Your task to perform on an android device: install app "eBay: The shopping marketplace" Image 0: 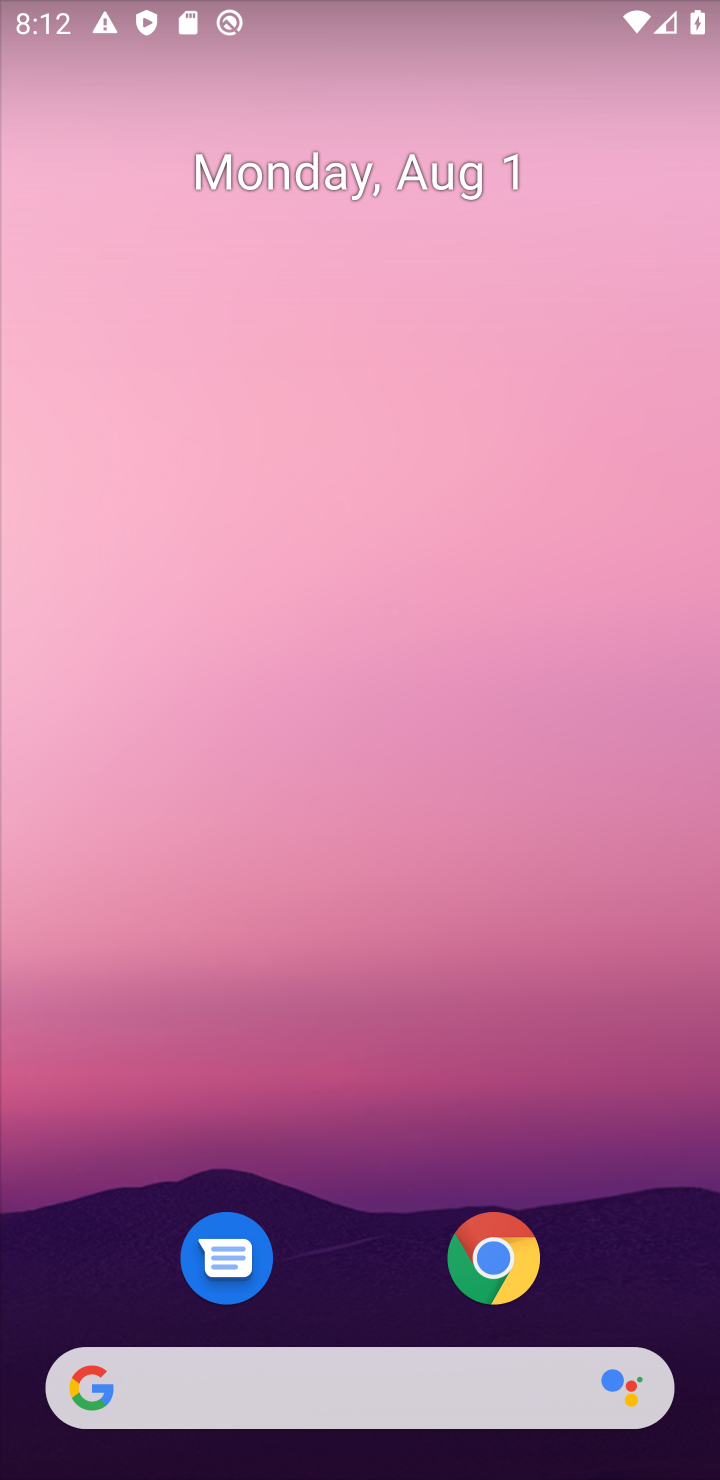
Step 0: drag from (305, 1274) to (425, 408)
Your task to perform on an android device: install app "eBay: The shopping marketplace" Image 1: 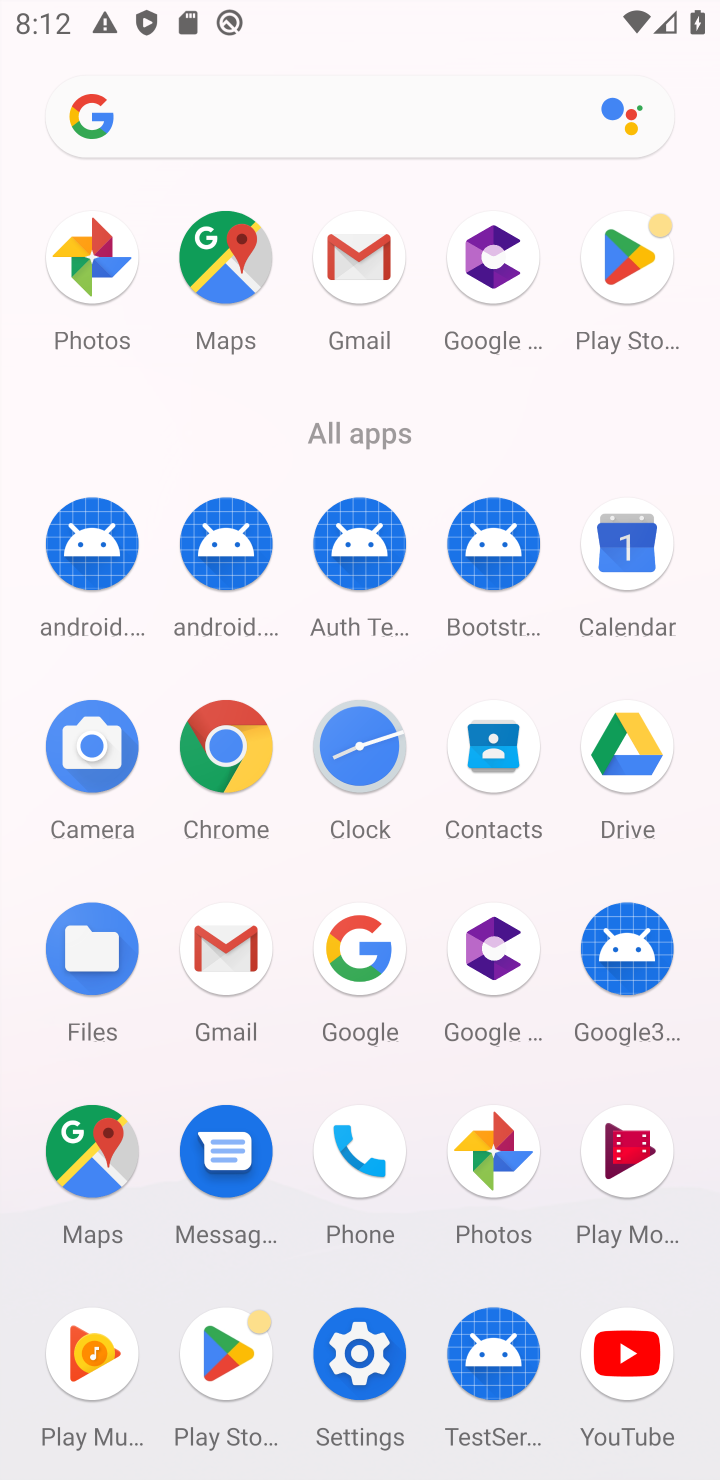
Step 1: click (222, 1349)
Your task to perform on an android device: install app "eBay: The shopping marketplace" Image 2: 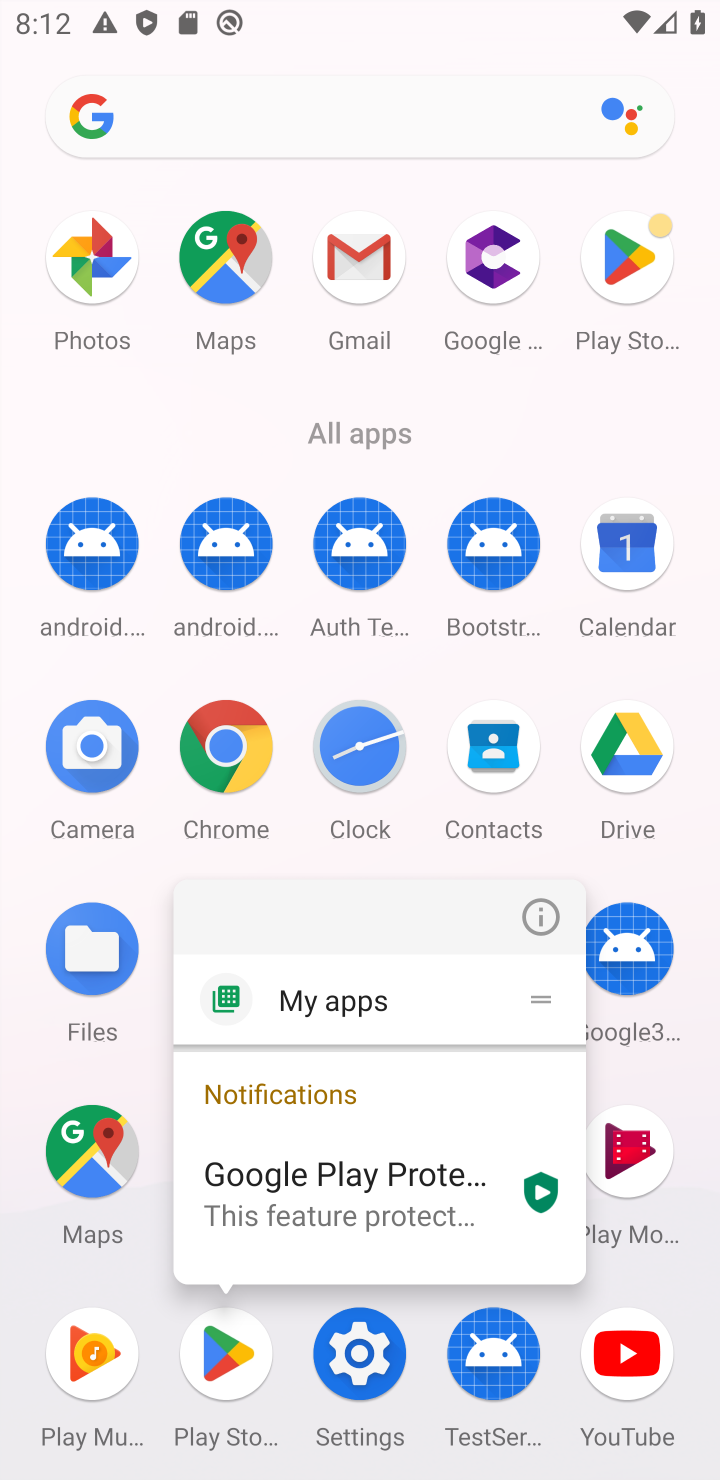
Step 2: click (235, 1344)
Your task to perform on an android device: install app "eBay: The shopping marketplace" Image 3: 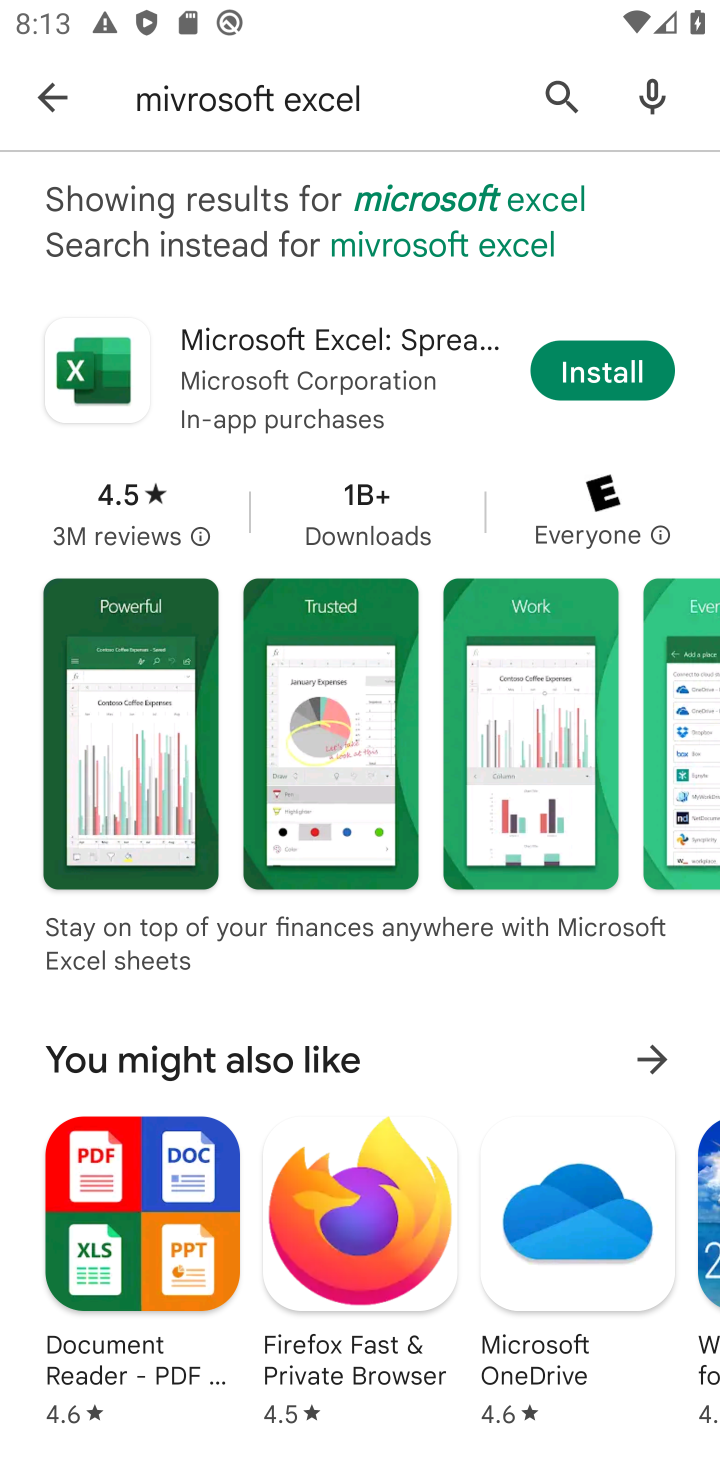
Step 3: click (48, 94)
Your task to perform on an android device: install app "eBay: The shopping marketplace" Image 4: 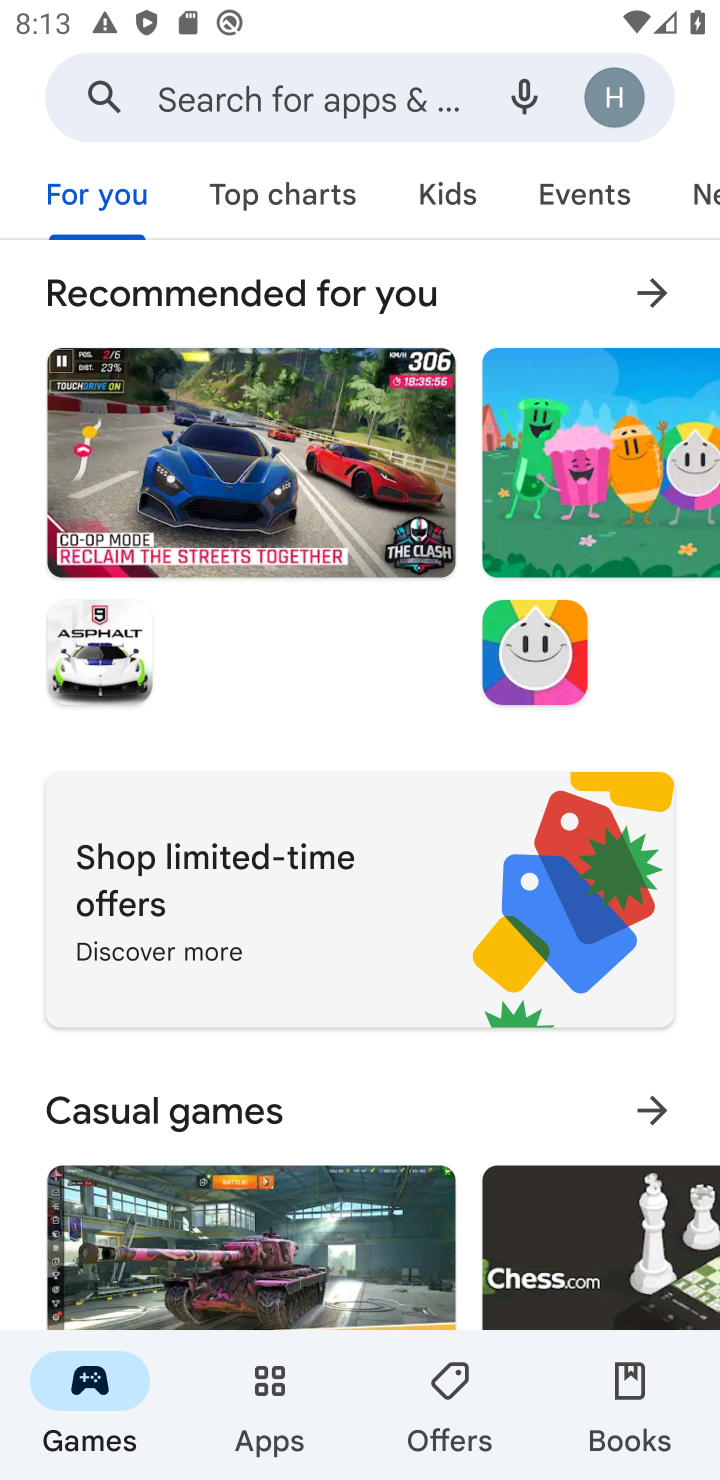
Step 4: type "eBay"
Your task to perform on an android device: install app "eBay: The shopping marketplace" Image 5: 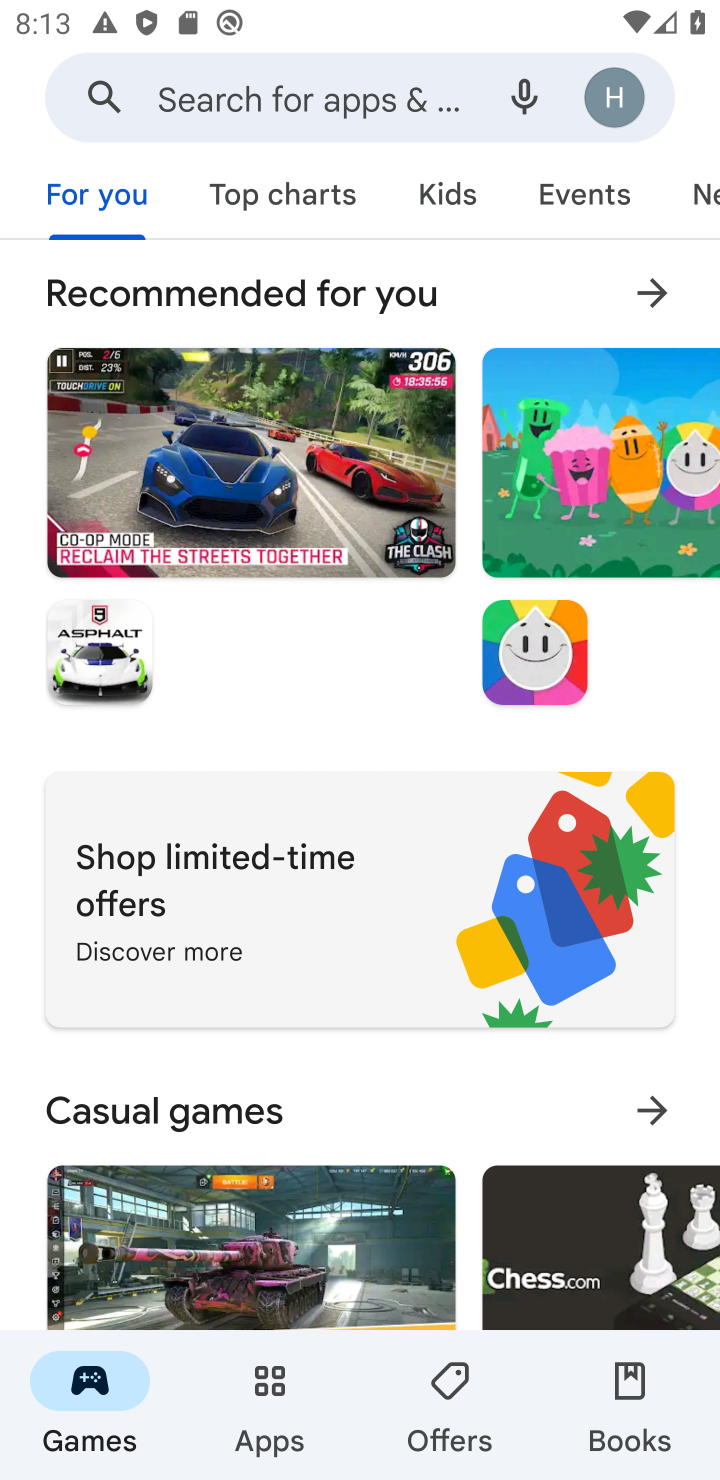
Step 5: click (171, 100)
Your task to perform on an android device: install app "eBay: The shopping marketplace" Image 6: 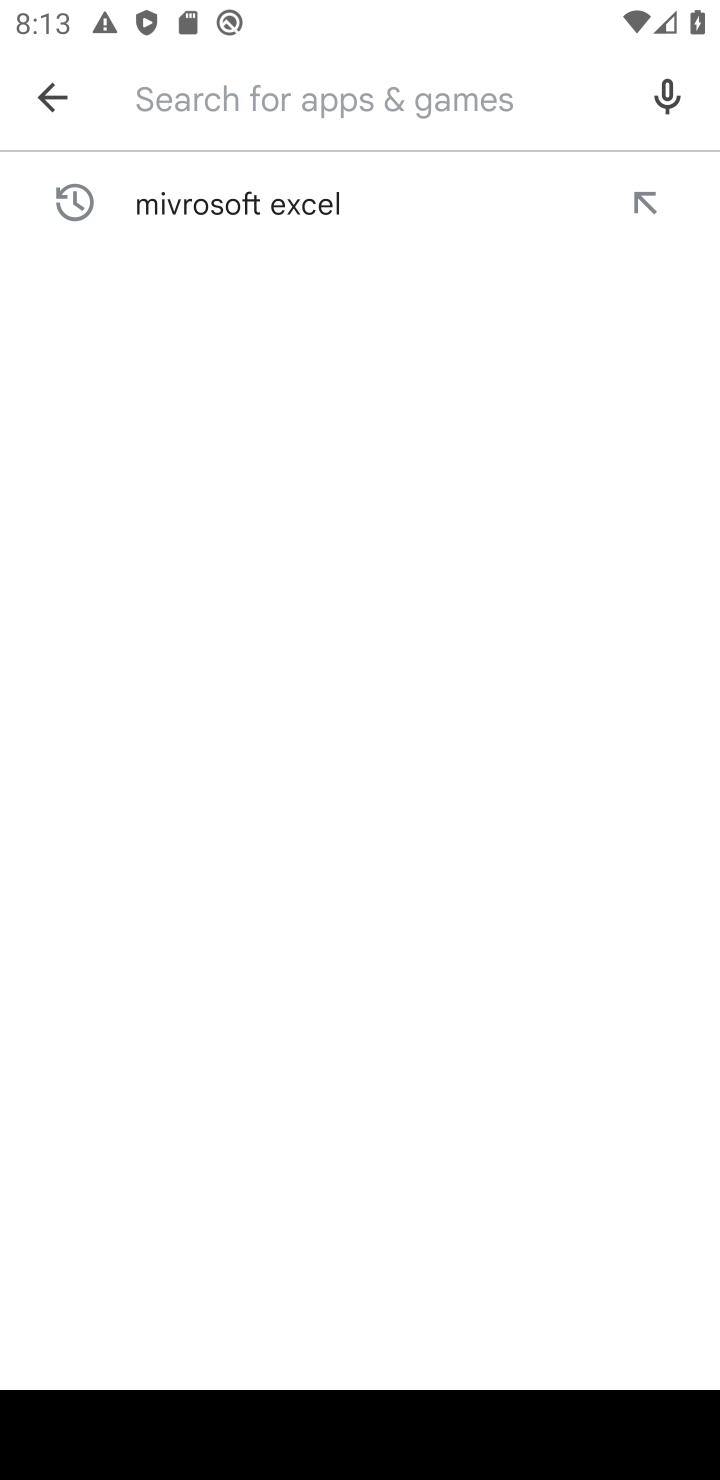
Step 6: click (683, 1478)
Your task to perform on an android device: install app "eBay: The shopping marketplace" Image 7: 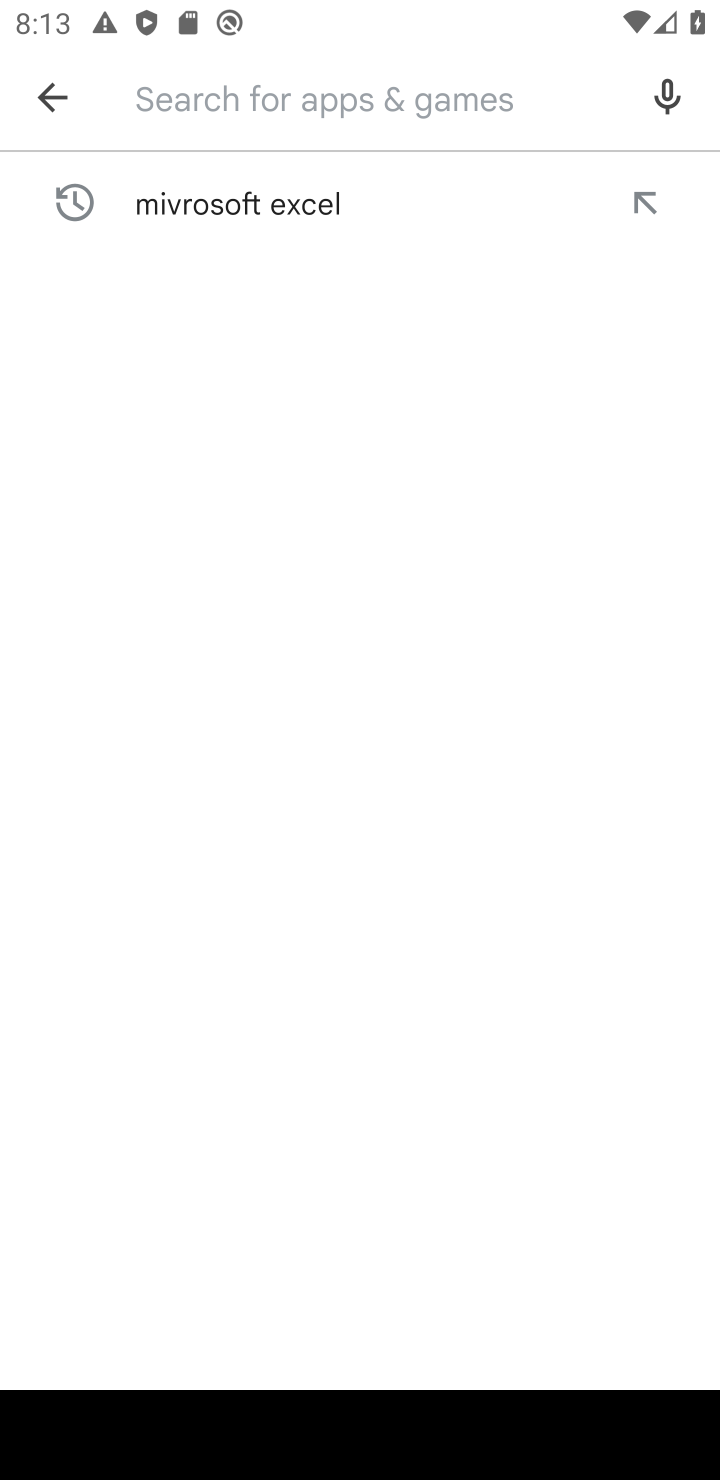
Step 7: type "eBay: The shopping marketplace"
Your task to perform on an android device: install app "eBay: The shopping marketplace" Image 8: 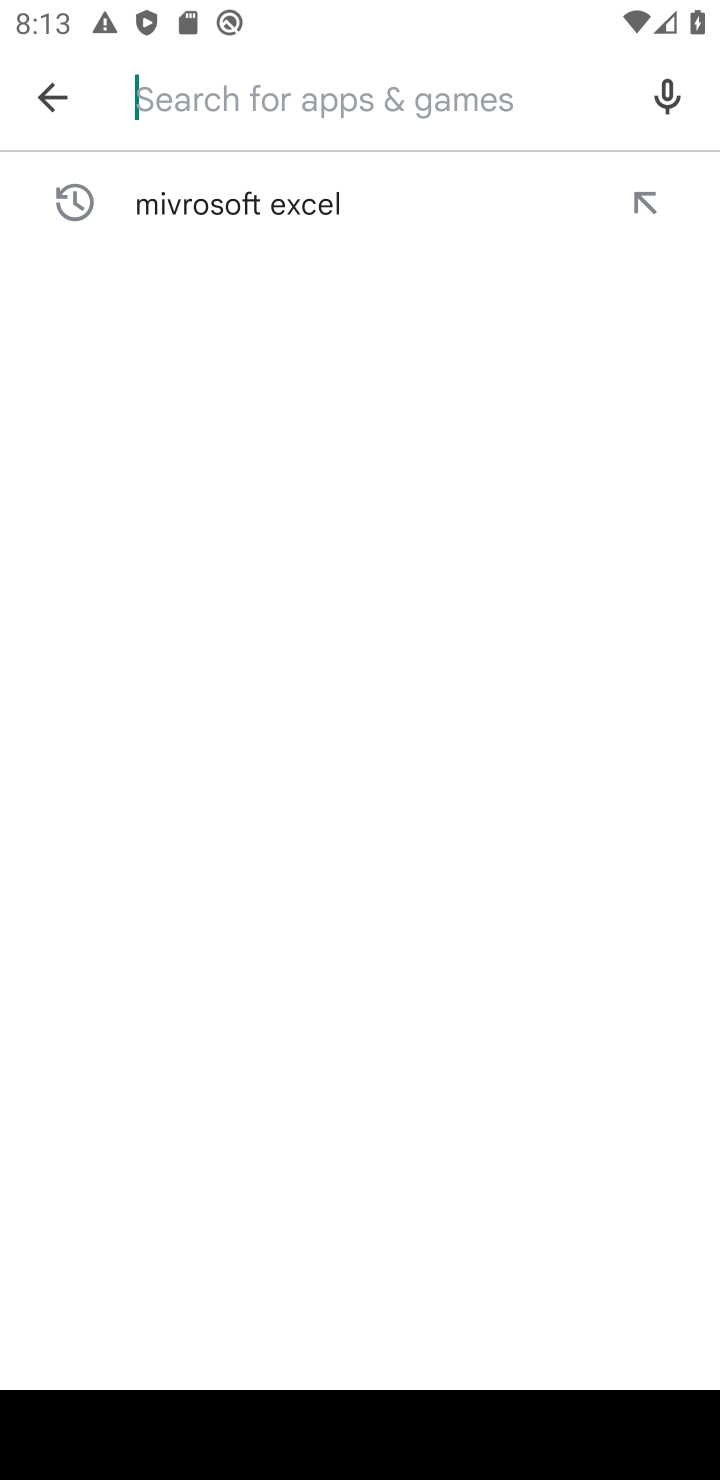
Step 8: click (672, 438)
Your task to perform on an android device: install app "eBay: The shopping marketplace" Image 9: 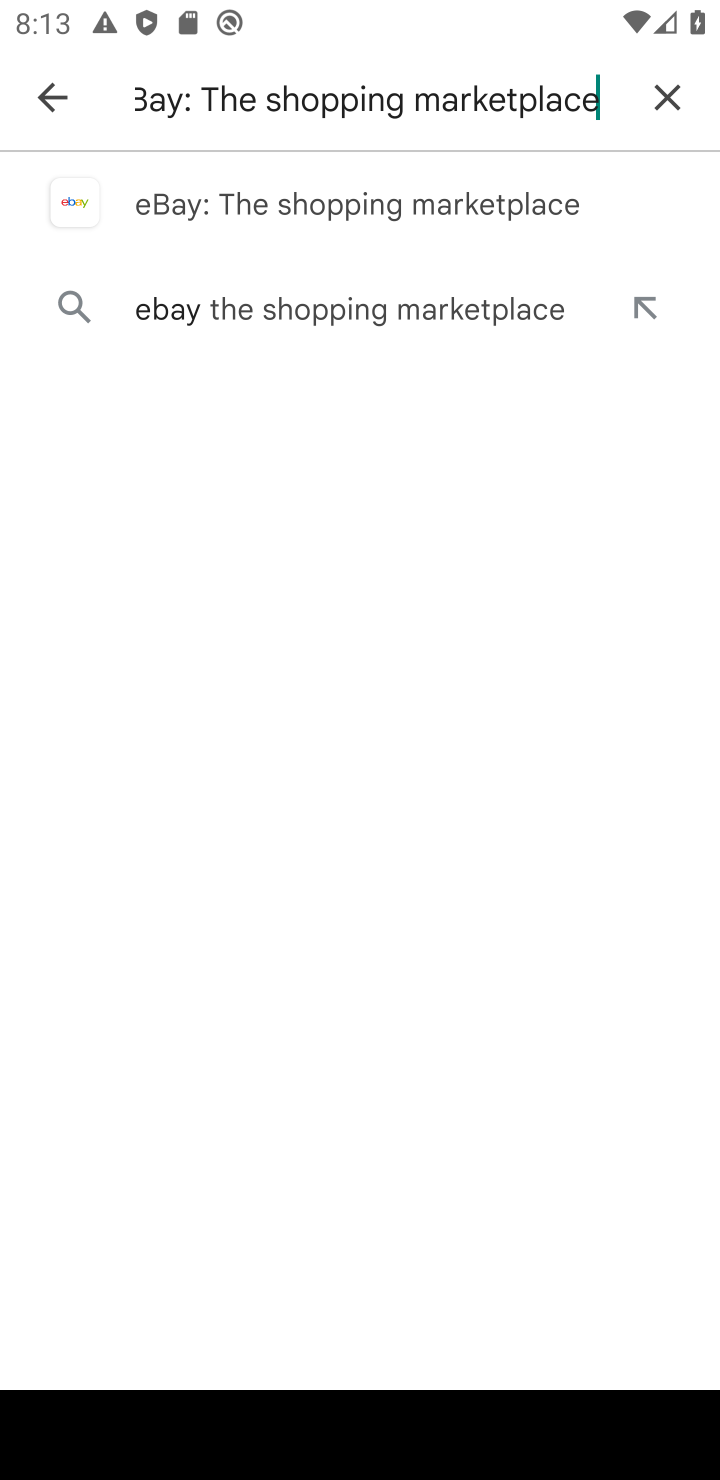
Step 9: click (329, 200)
Your task to perform on an android device: install app "eBay: The shopping marketplace" Image 10: 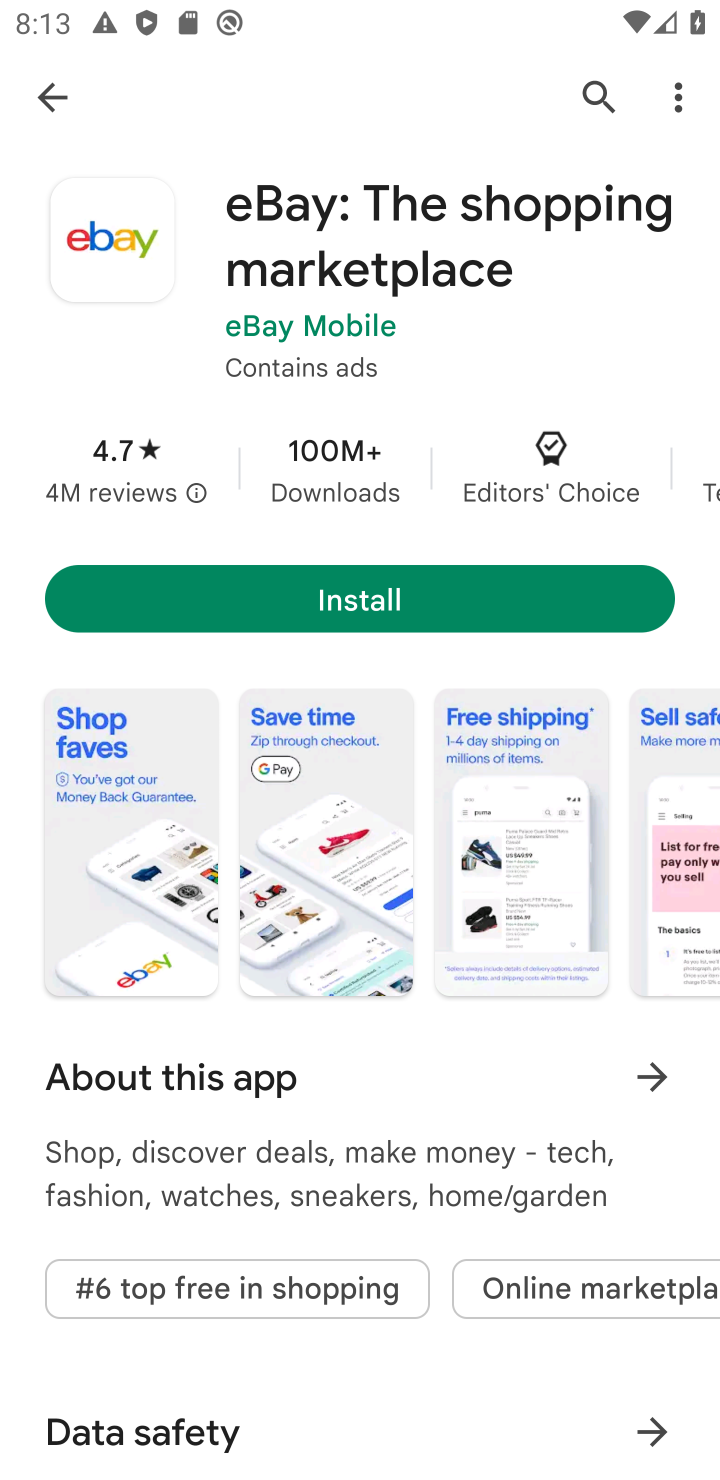
Step 10: click (474, 598)
Your task to perform on an android device: install app "eBay: The shopping marketplace" Image 11: 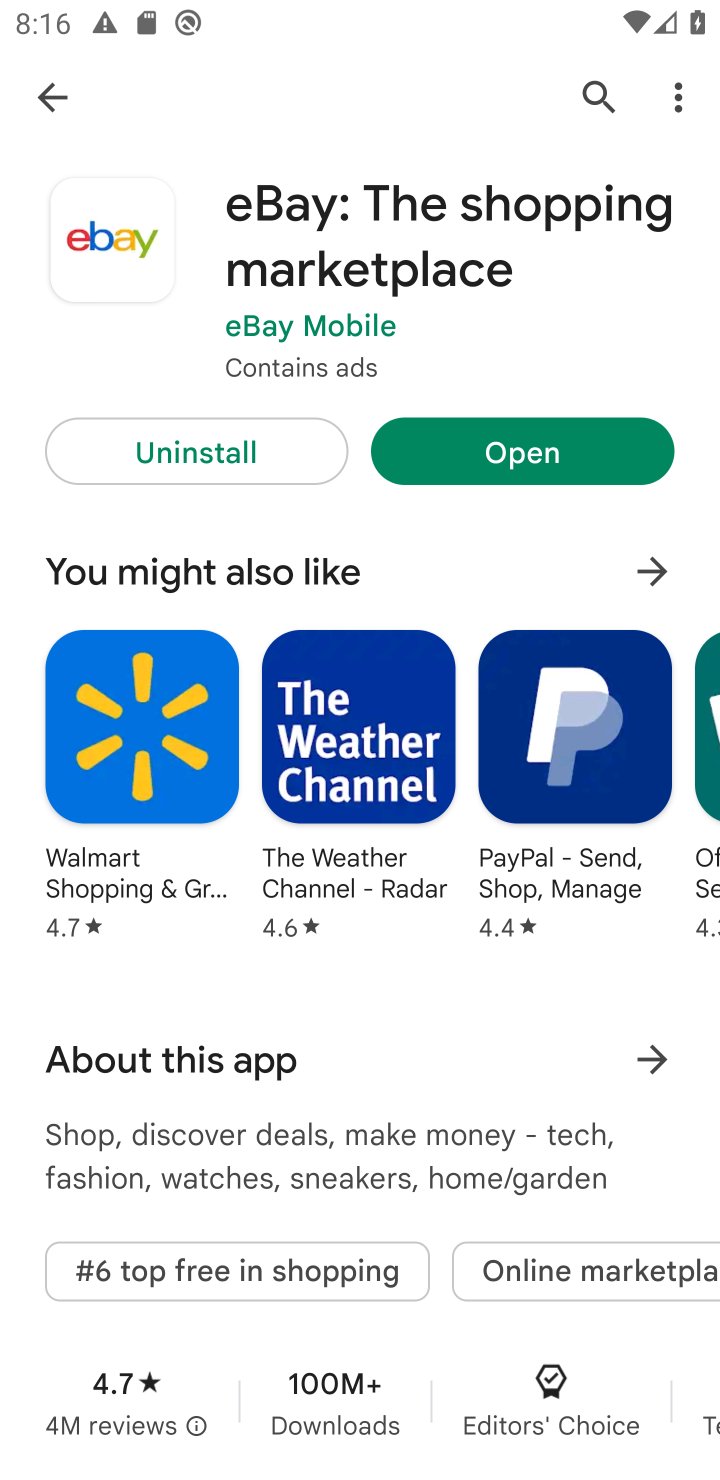
Step 11: task complete